Your task to perform on an android device: Open Chrome and go to settings Image 0: 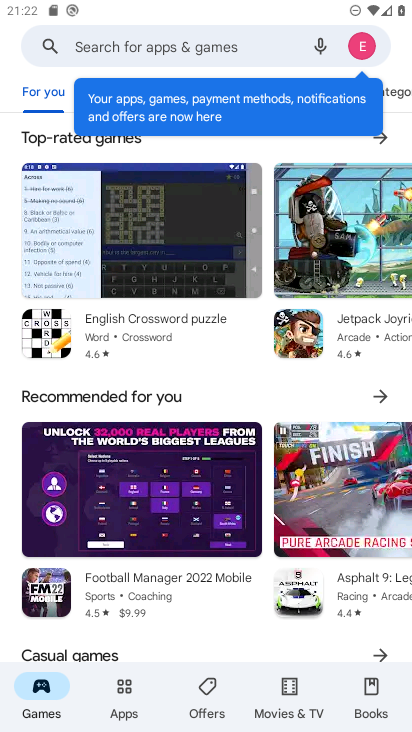
Step 0: press home button
Your task to perform on an android device: Open Chrome and go to settings Image 1: 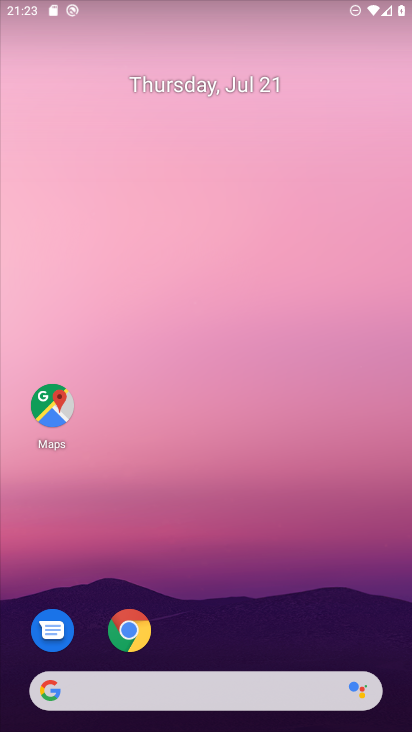
Step 1: drag from (313, 603) to (275, 144)
Your task to perform on an android device: Open Chrome and go to settings Image 2: 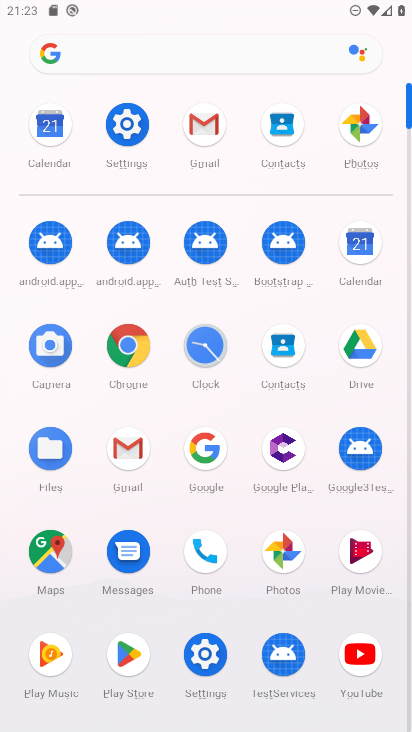
Step 2: click (124, 344)
Your task to perform on an android device: Open Chrome and go to settings Image 3: 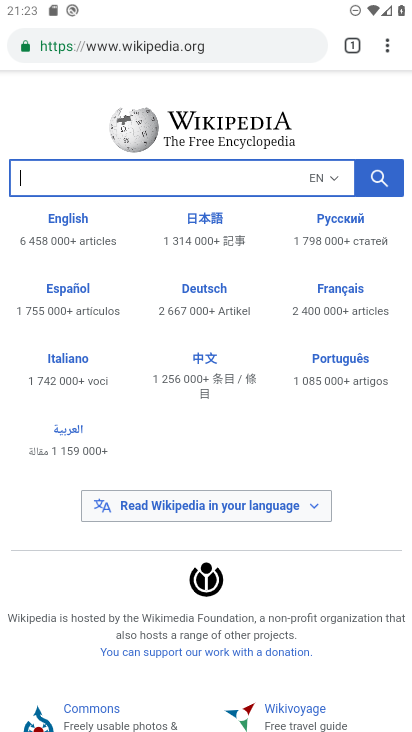
Step 3: click (386, 40)
Your task to perform on an android device: Open Chrome and go to settings Image 4: 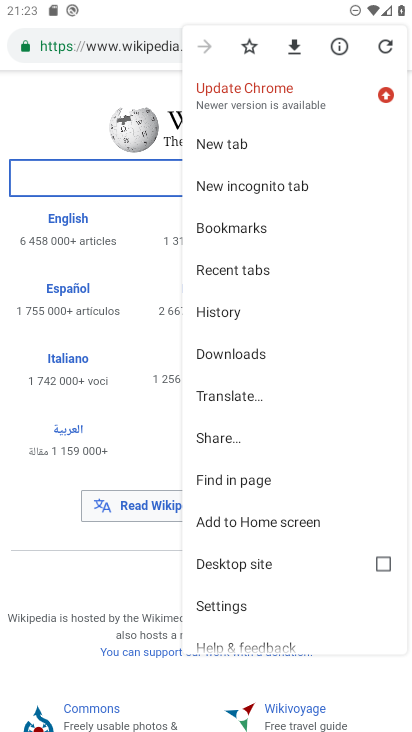
Step 4: click (235, 607)
Your task to perform on an android device: Open Chrome and go to settings Image 5: 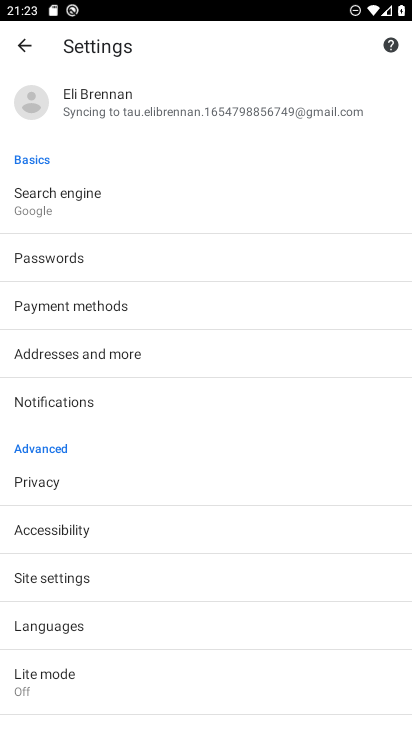
Step 5: task complete